Your task to perform on an android device: snooze an email in the gmail app Image 0: 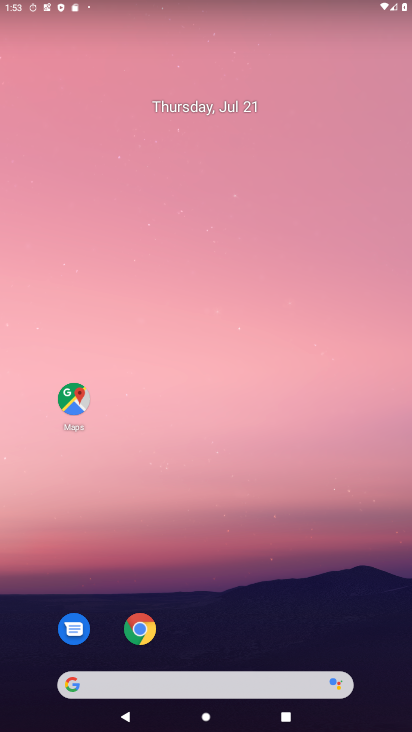
Step 0: drag from (103, 476) to (135, 287)
Your task to perform on an android device: snooze an email in the gmail app Image 1: 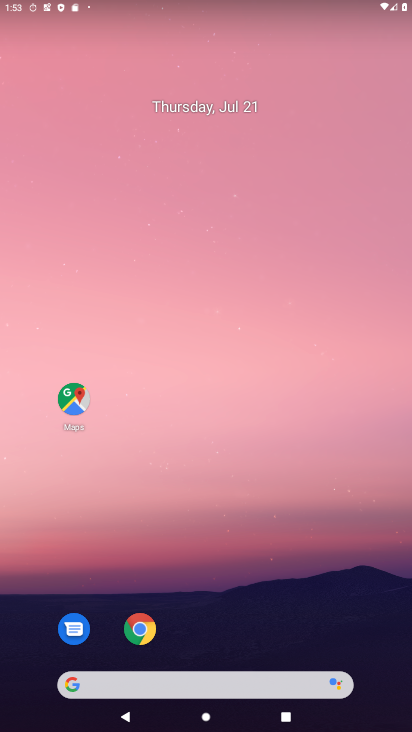
Step 1: drag from (76, 606) to (248, 163)
Your task to perform on an android device: snooze an email in the gmail app Image 2: 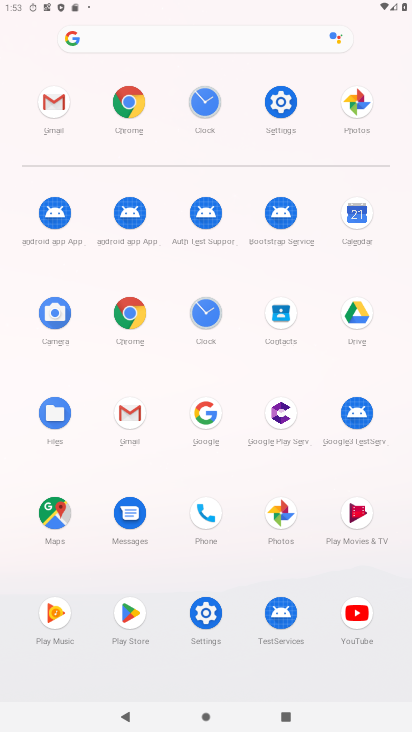
Step 2: click (141, 412)
Your task to perform on an android device: snooze an email in the gmail app Image 3: 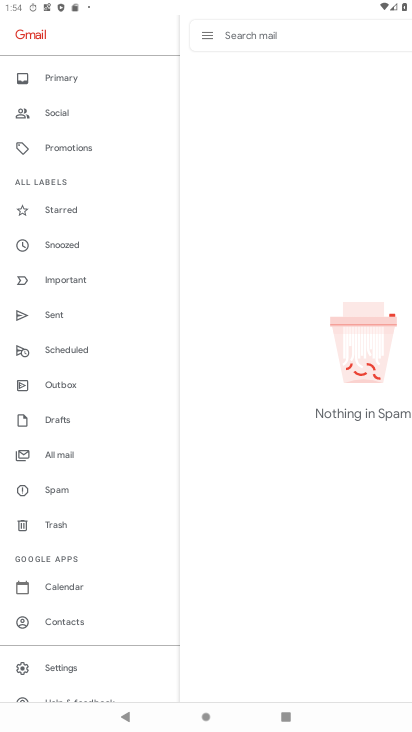
Step 3: click (53, 244)
Your task to perform on an android device: snooze an email in the gmail app Image 4: 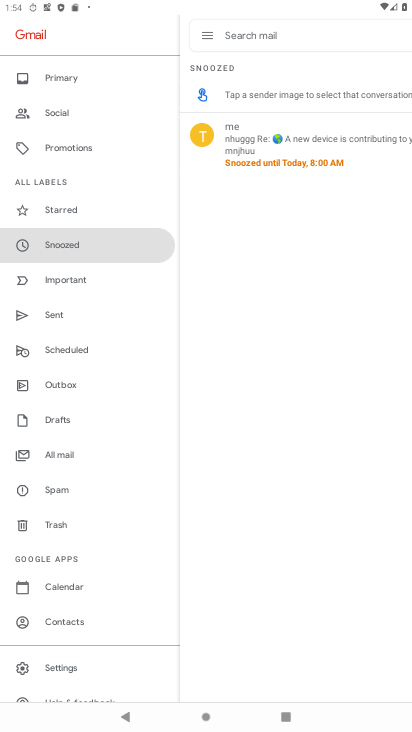
Step 4: task complete